Your task to perform on an android device: Show the shopping cart on target. Add razer blackwidow to the cart on target, then select checkout. Image 0: 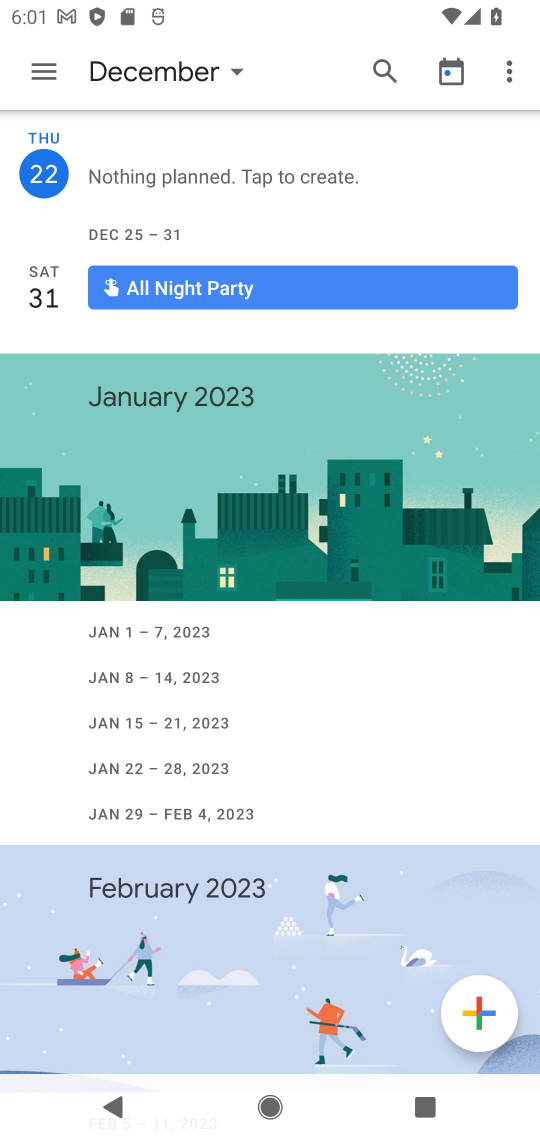
Step 0: press home button
Your task to perform on an android device: Show the shopping cart on target. Add razer blackwidow to the cart on target, then select checkout. Image 1: 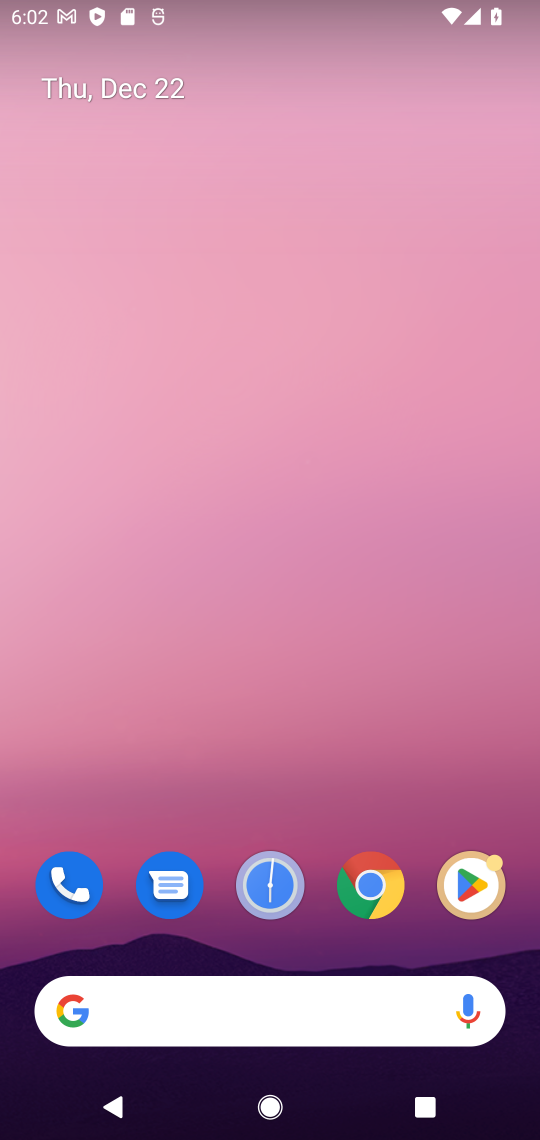
Step 1: click (371, 881)
Your task to perform on an android device: Show the shopping cart on target. Add razer blackwidow to the cart on target, then select checkout. Image 2: 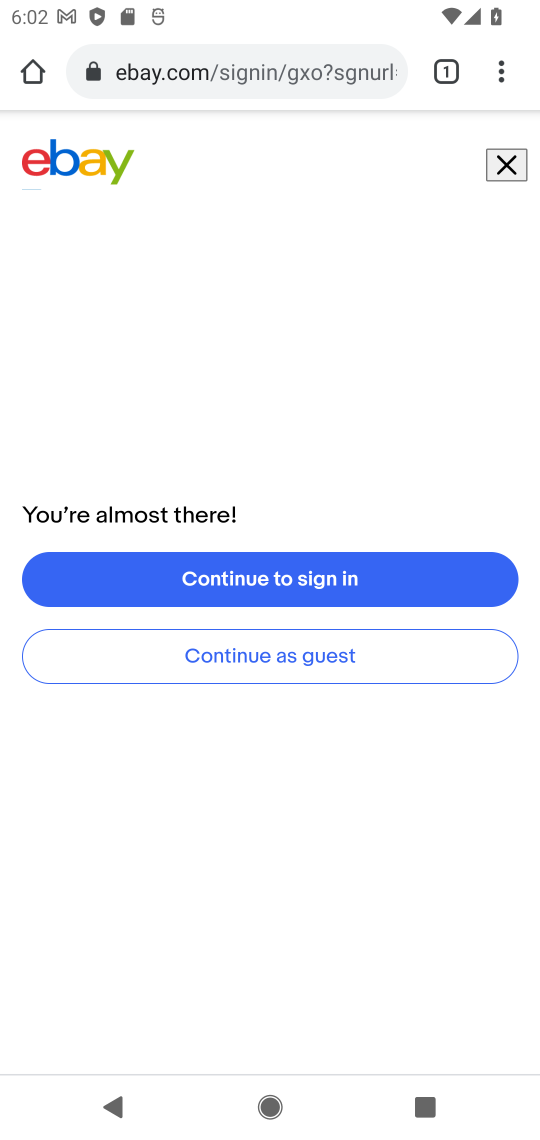
Step 2: click (199, 69)
Your task to perform on an android device: Show the shopping cart on target. Add razer blackwidow to the cart on target, then select checkout. Image 3: 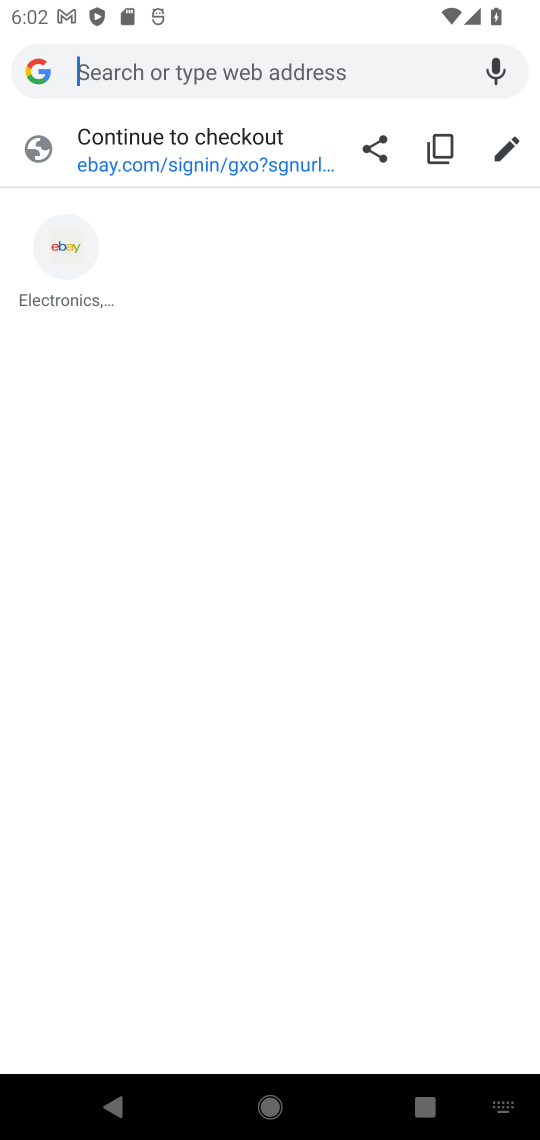
Step 3: type "target.com"
Your task to perform on an android device: Show the shopping cart on target. Add razer blackwidow to the cart on target, then select checkout. Image 4: 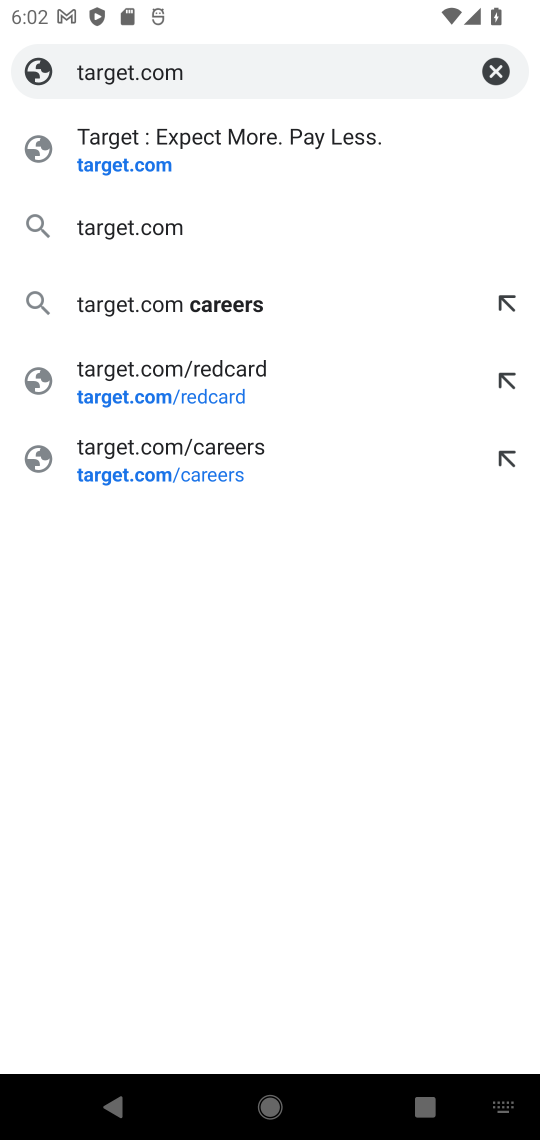
Step 4: click (106, 161)
Your task to perform on an android device: Show the shopping cart on target. Add razer blackwidow to the cart on target, then select checkout. Image 5: 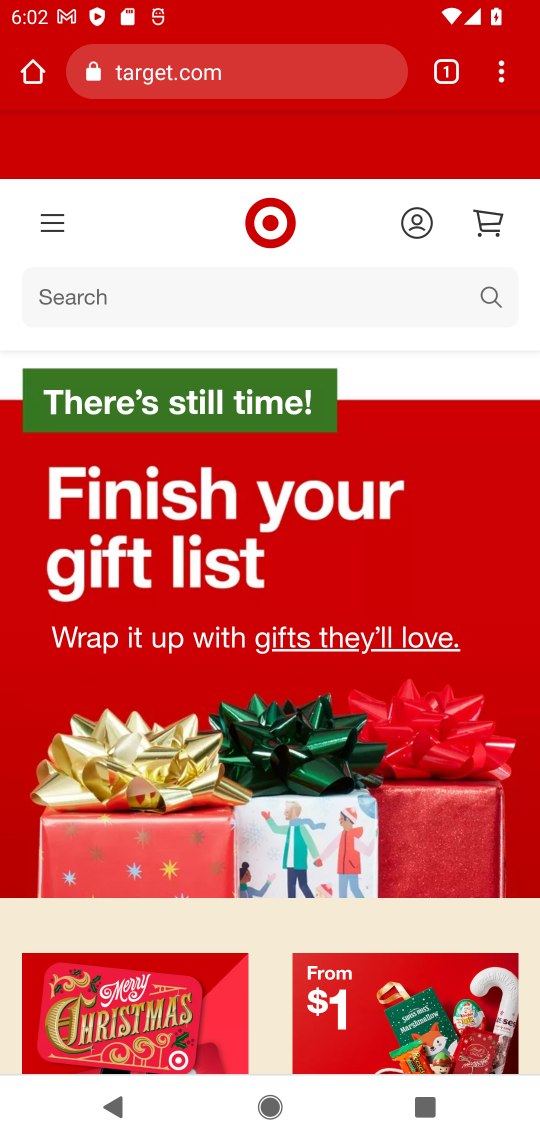
Step 5: click (484, 231)
Your task to perform on an android device: Show the shopping cart on target. Add razer blackwidow to the cart on target, then select checkout. Image 6: 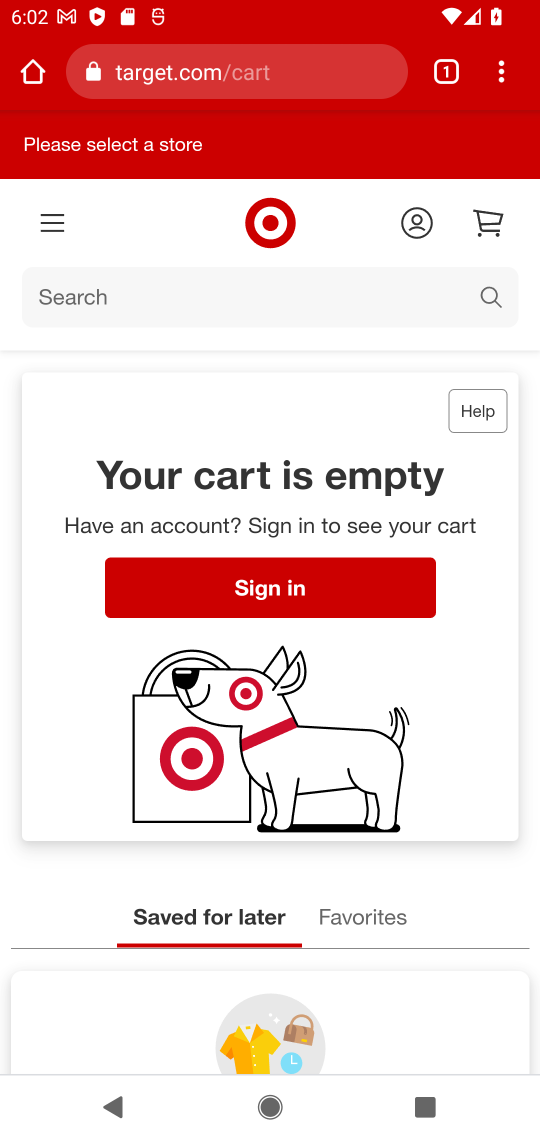
Step 6: click (45, 290)
Your task to perform on an android device: Show the shopping cart on target. Add razer blackwidow to the cart on target, then select checkout. Image 7: 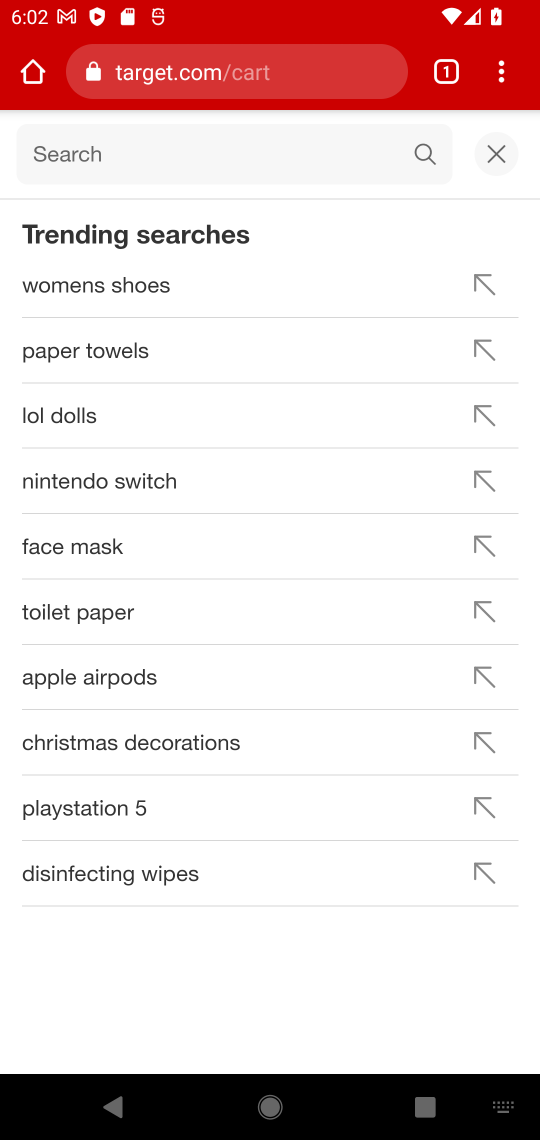
Step 7: type "razer blackwidow"
Your task to perform on an android device: Show the shopping cart on target. Add razer blackwidow to the cart on target, then select checkout. Image 8: 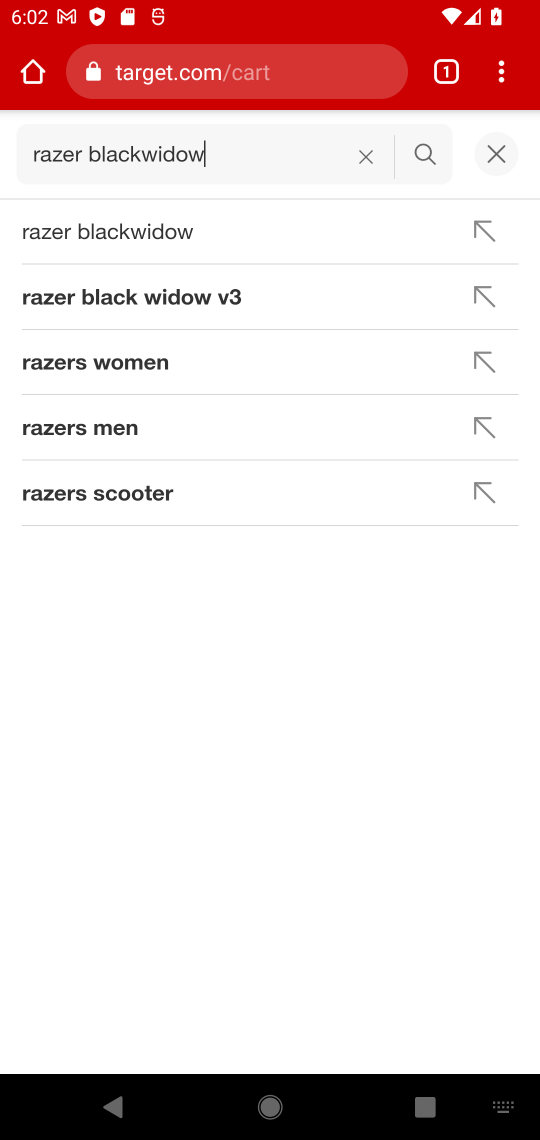
Step 8: click (98, 239)
Your task to perform on an android device: Show the shopping cart on target. Add razer blackwidow to the cart on target, then select checkout. Image 9: 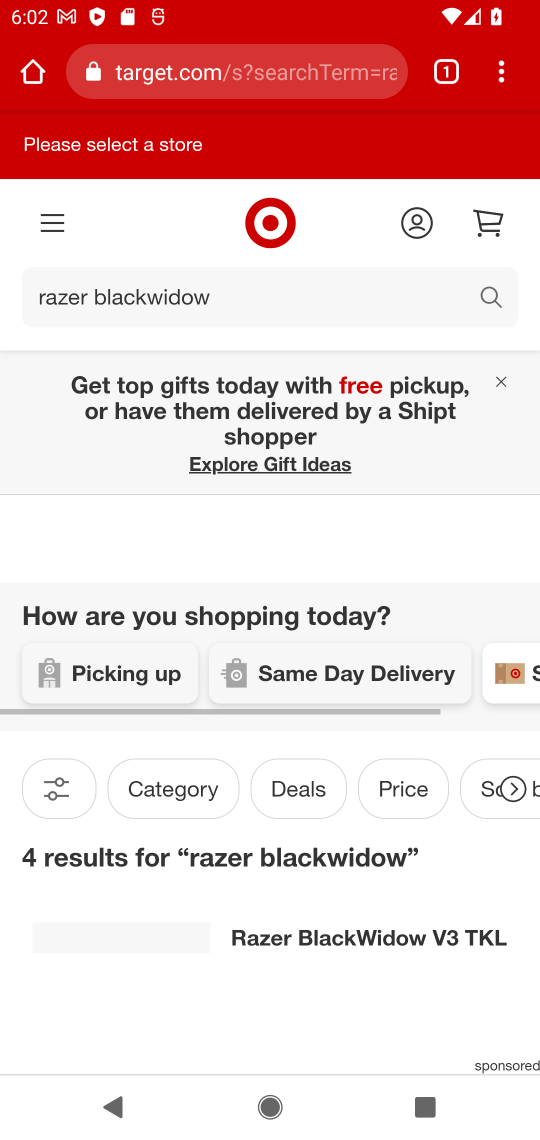
Step 9: drag from (233, 862) to (217, 361)
Your task to perform on an android device: Show the shopping cart on target. Add razer blackwidow to the cart on target, then select checkout. Image 10: 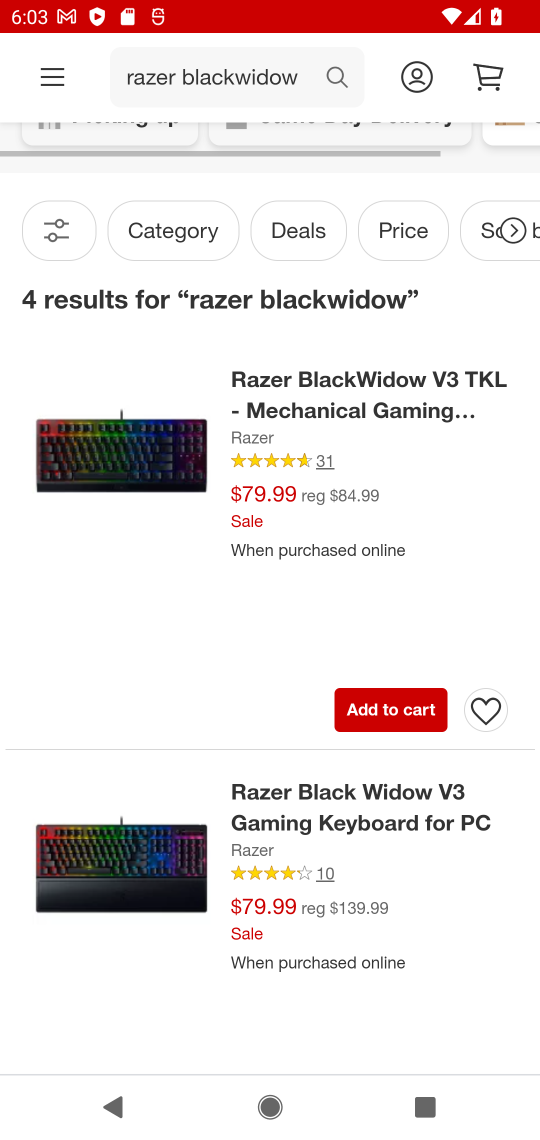
Step 10: click (372, 712)
Your task to perform on an android device: Show the shopping cart on target. Add razer blackwidow to the cart on target, then select checkout. Image 11: 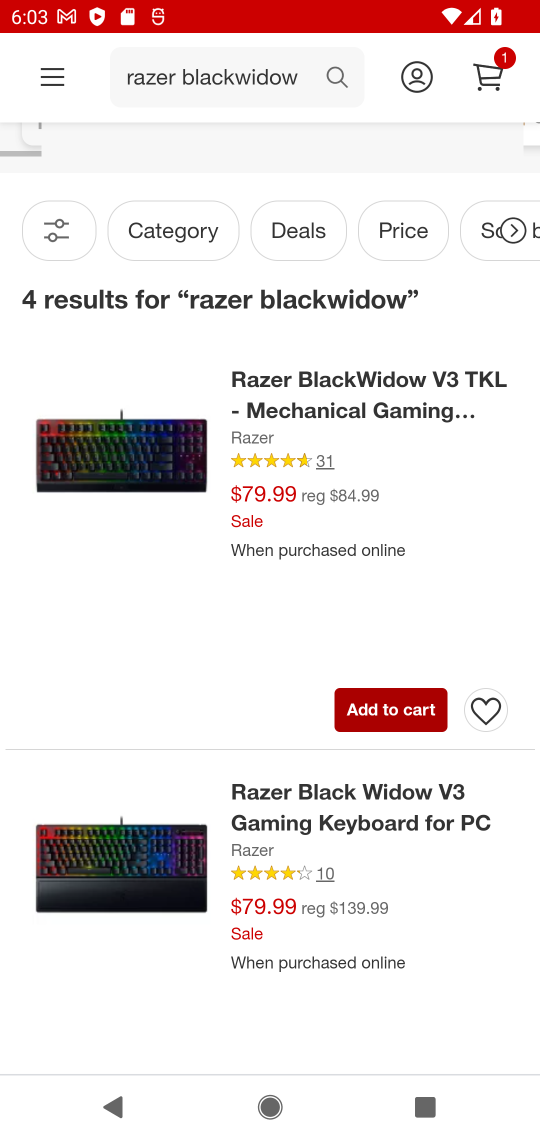
Step 11: click (479, 83)
Your task to perform on an android device: Show the shopping cart on target. Add razer blackwidow to the cart on target, then select checkout. Image 12: 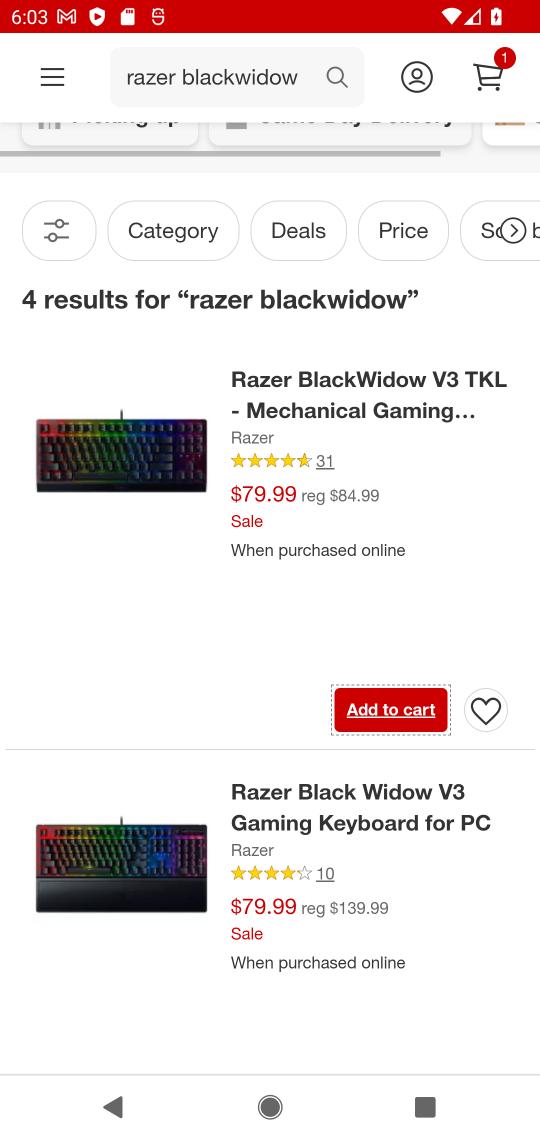
Step 12: click (498, 70)
Your task to perform on an android device: Show the shopping cart on target. Add razer blackwidow to the cart on target, then select checkout. Image 13: 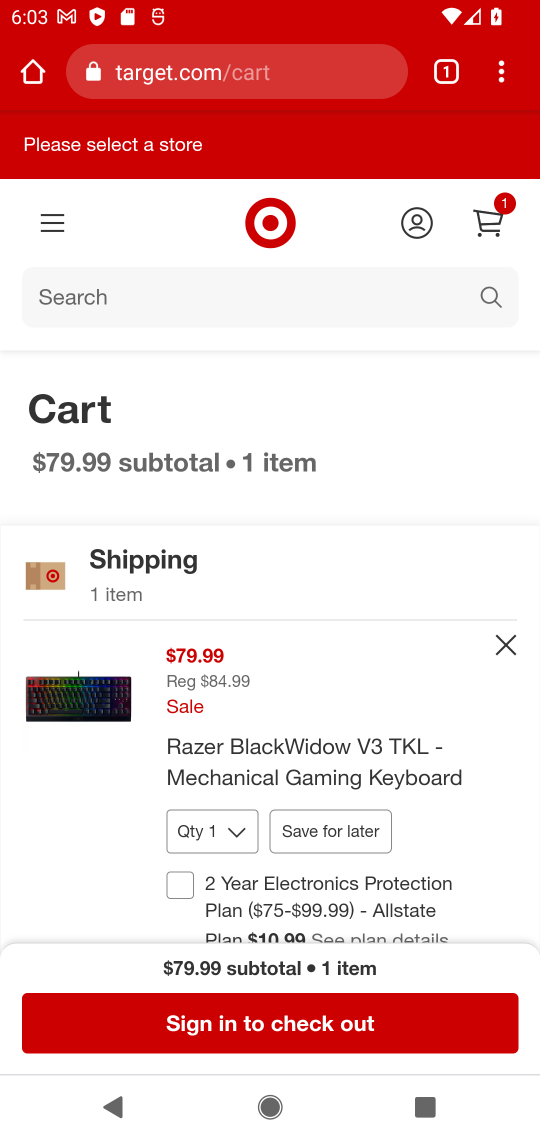
Step 13: click (264, 1026)
Your task to perform on an android device: Show the shopping cart on target. Add razer blackwidow to the cart on target, then select checkout. Image 14: 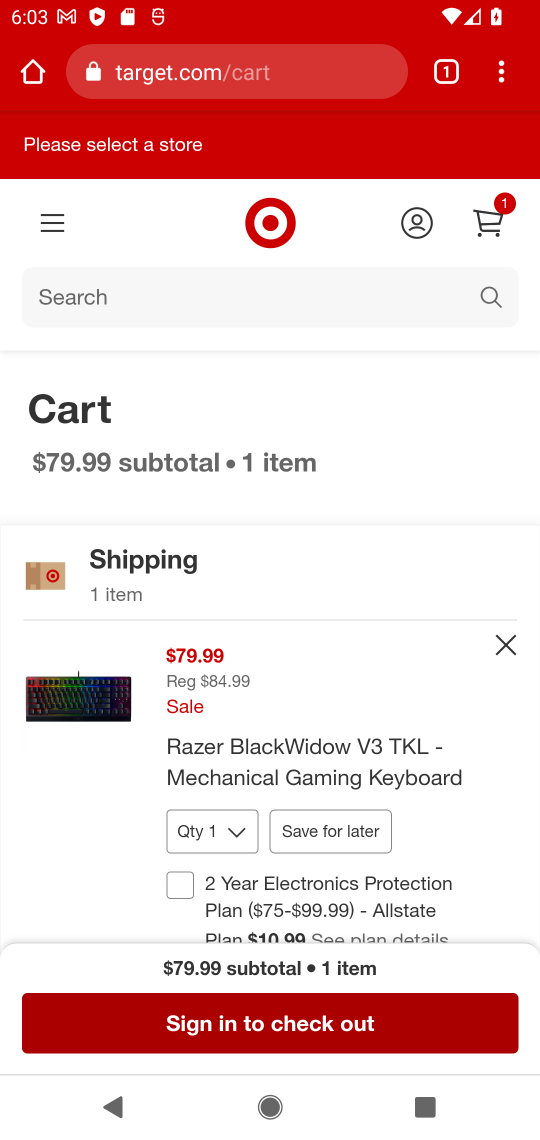
Step 14: click (264, 1026)
Your task to perform on an android device: Show the shopping cart on target. Add razer blackwidow to the cart on target, then select checkout. Image 15: 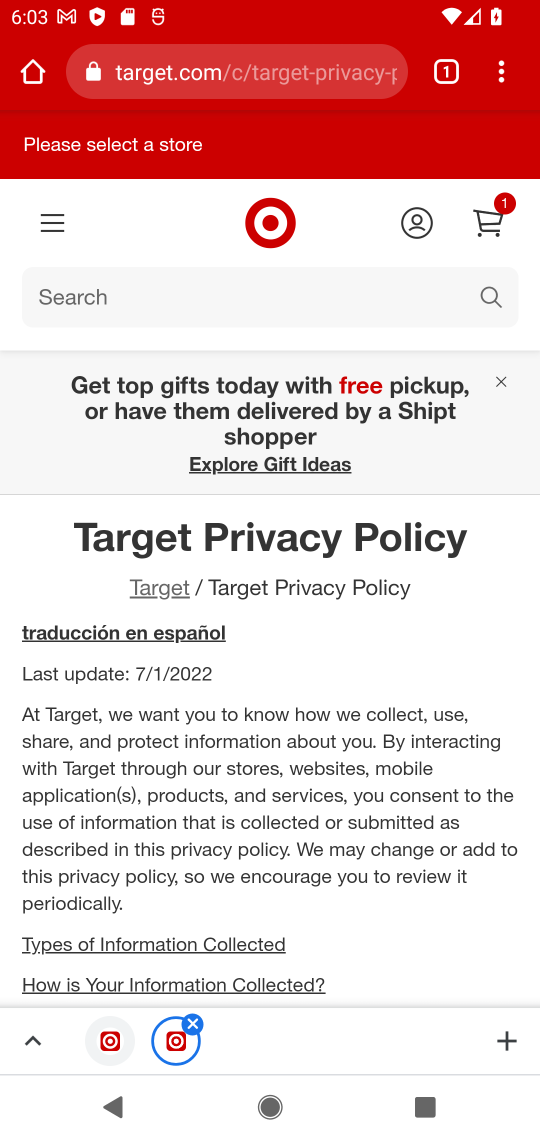
Step 15: task complete